Your task to perform on an android device: Go to privacy settings Image 0: 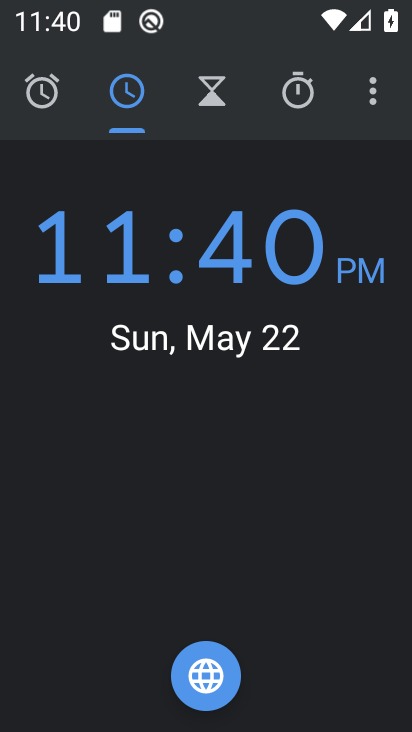
Step 0: press home button
Your task to perform on an android device: Go to privacy settings Image 1: 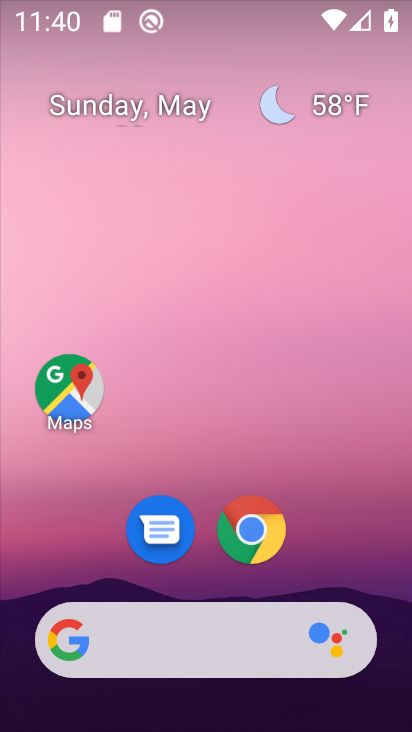
Step 1: drag from (204, 666) to (97, 193)
Your task to perform on an android device: Go to privacy settings Image 2: 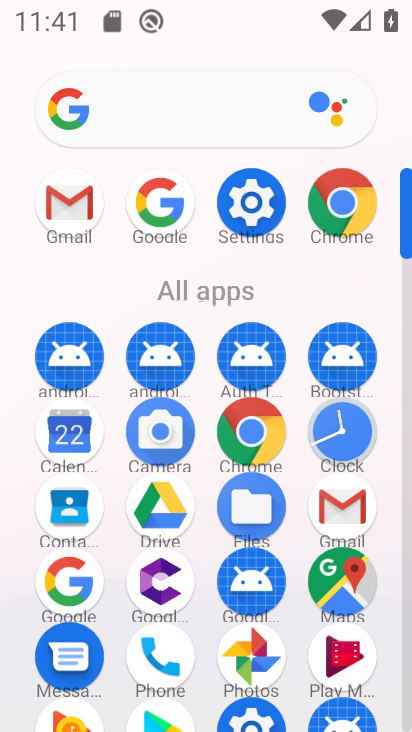
Step 2: click (234, 207)
Your task to perform on an android device: Go to privacy settings Image 3: 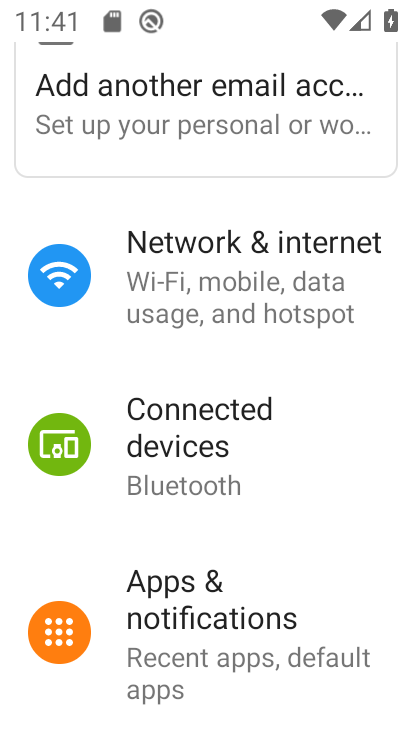
Step 3: drag from (321, 668) to (246, 278)
Your task to perform on an android device: Go to privacy settings Image 4: 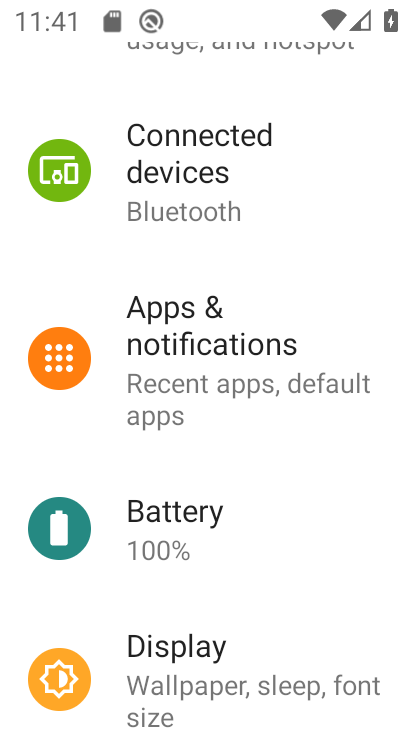
Step 4: drag from (225, 570) to (155, 105)
Your task to perform on an android device: Go to privacy settings Image 5: 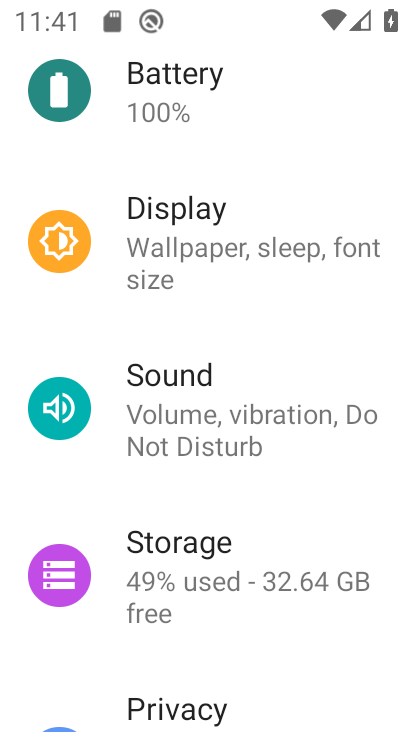
Step 5: drag from (235, 655) to (141, 143)
Your task to perform on an android device: Go to privacy settings Image 6: 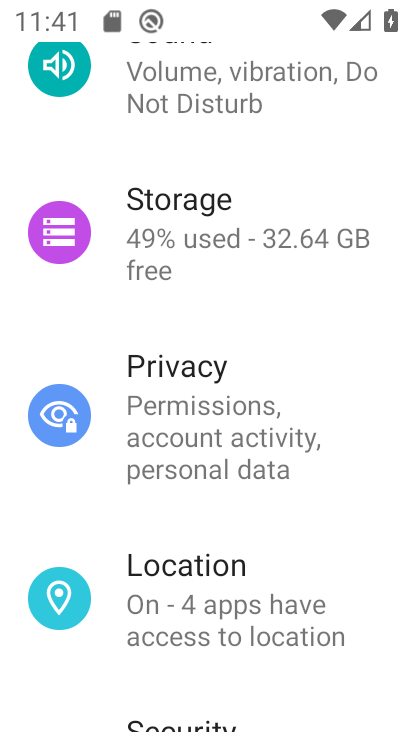
Step 6: click (177, 406)
Your task to perform on an android device: Go to privacy settings Image 7: 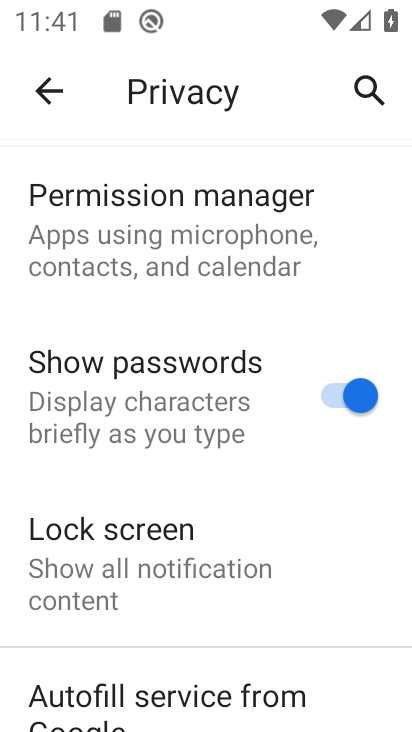
Step 7: task complete